Your task to perform on an android device: Open Google Chrome Image 0: 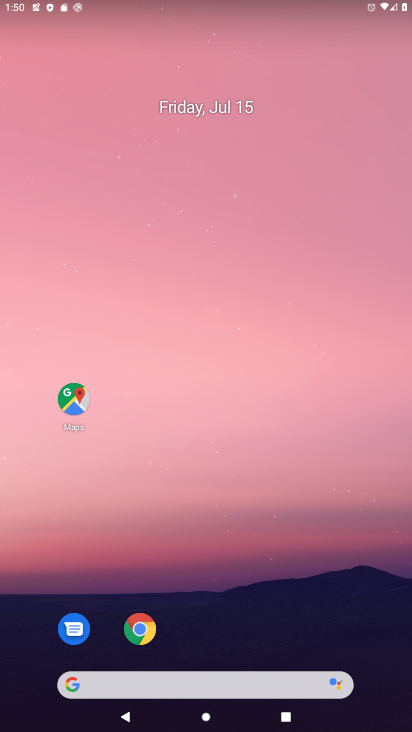
Step 0: drag from (306, 609) to (209, 125)
Your task to perform on an android device: Open Google Chrome Image 1: 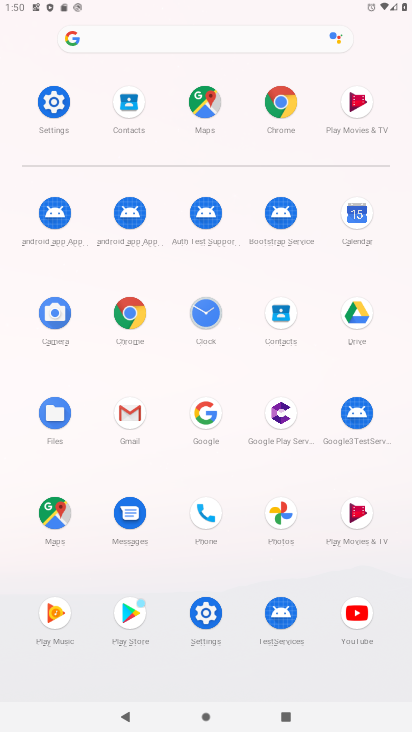
Step 1: click (278, 104)
Your task to perform on an android device: Open Google Chrome Image 2: 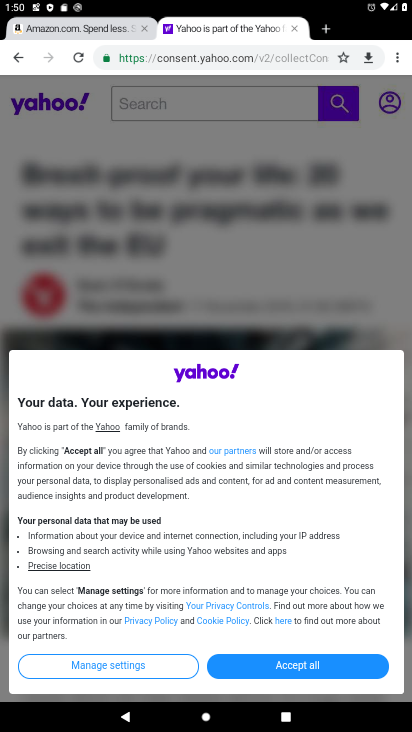
Step 2: task complete